Your task to perform on an android device: Go to privacy settings Image 0: 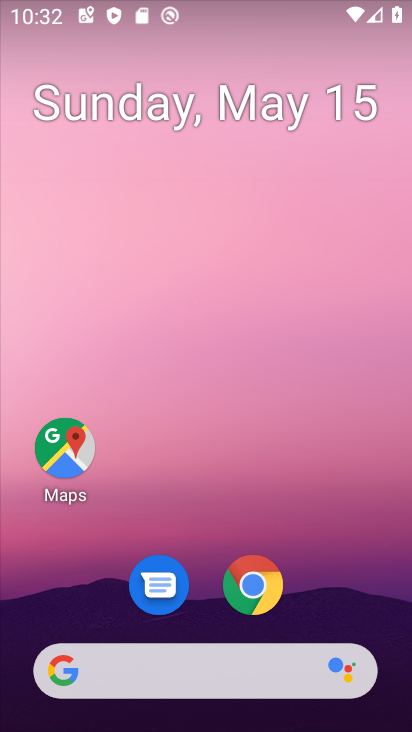
Step 0: drag from (205, 520) to (242, 55)
Your task to perform on an android device: Go to privacy settings Image 1: 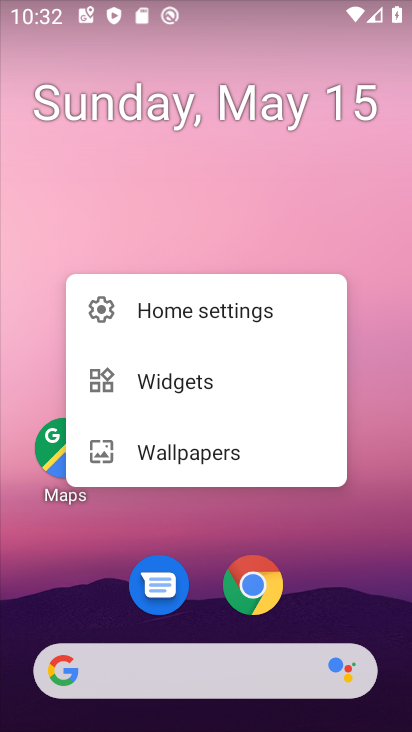
Step 1: drag from (369, 503) to (348, 70)
Your task to perform on an android device: Go to privacy settings Image 2: 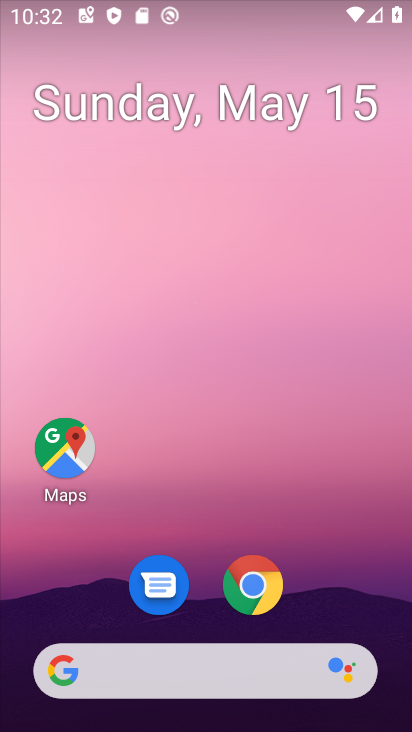
Step 2: drag from (229, 508) to (236, 41)
Your task to perform on an android device: Go to privacy settings Image 3: 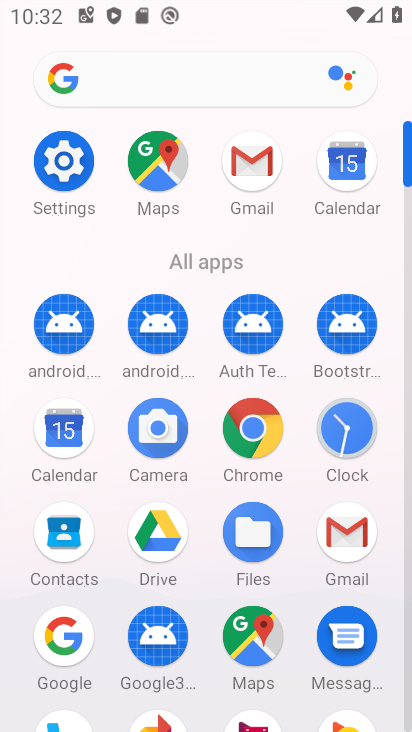
Step 3: click (64, 161)
Your task to perform on an android device: Go to privacy settings Image 4: 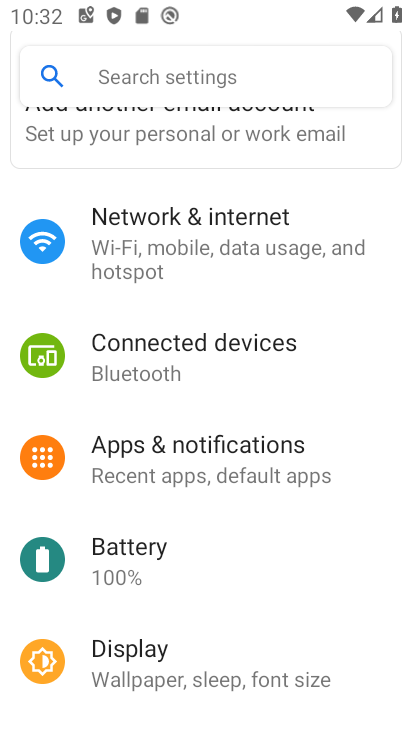
Step 4: drag from (214, 601) to (226, 167)
Your task to perform on an android device: Go to privacy settings Image 5: 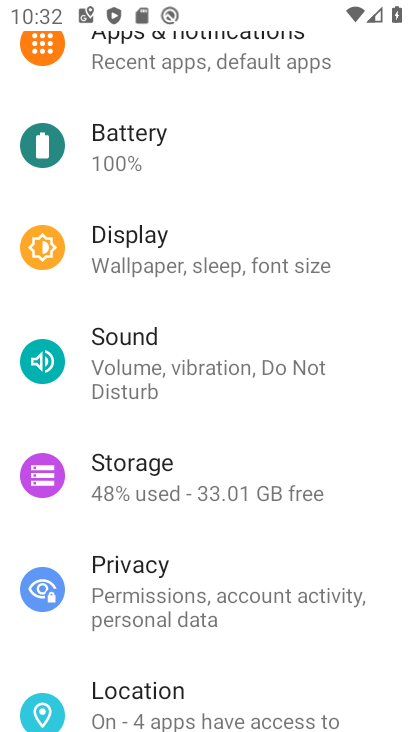
Step 5: click (201, 568)
Your task to perform on an android device: Go to privacy settings Image 6: 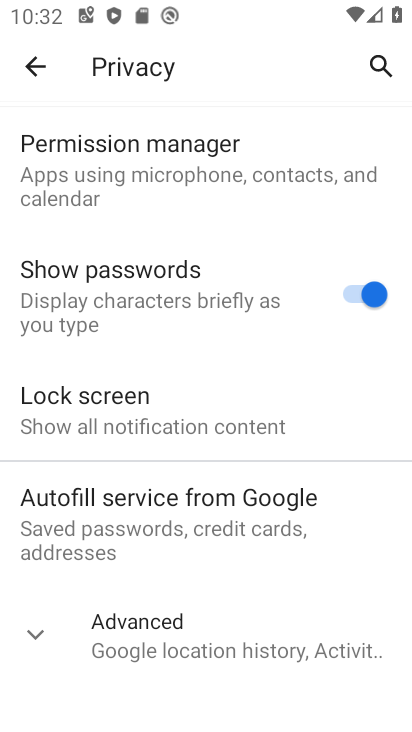
Step 6: task complete